Your task to perform on an android device: Open the stopwatch Image 0: 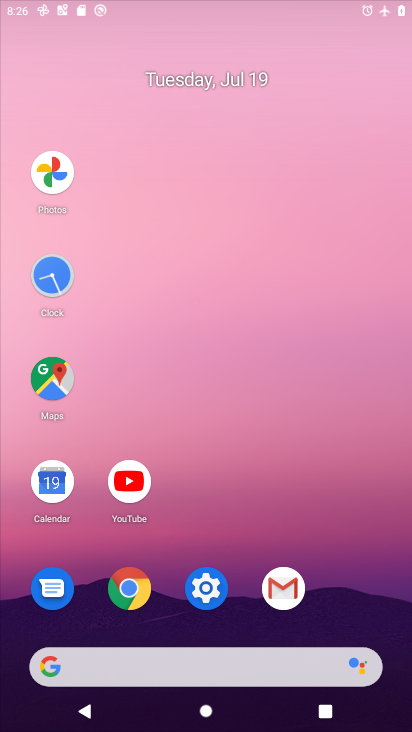
Step 0: click (212, 581)
Your task to perform on an android device: Open the stopwatch Image 1: 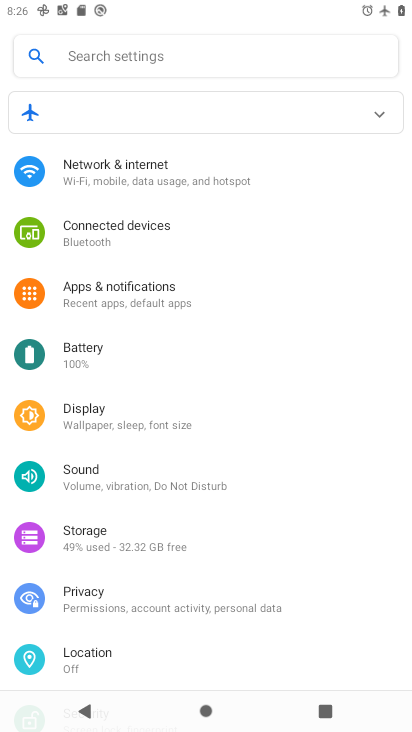
Step 1: press home button
Your task to perform on an android device: Open the stopwatch Image 2: 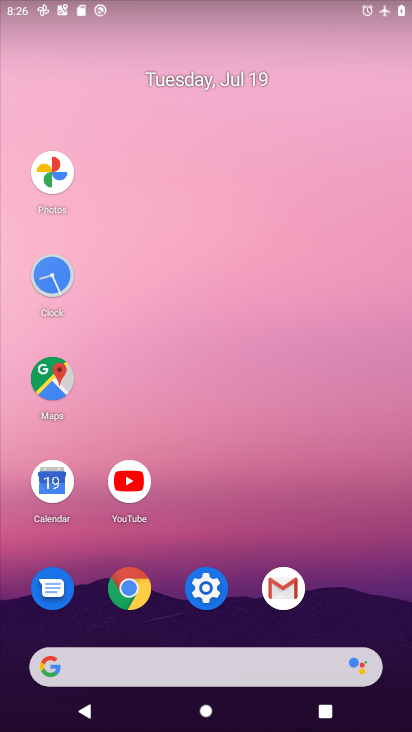
Step 2: drag from (225, 516) to (159, 241)
Your task to perform on an android device: Open the stopwatch Image 3: 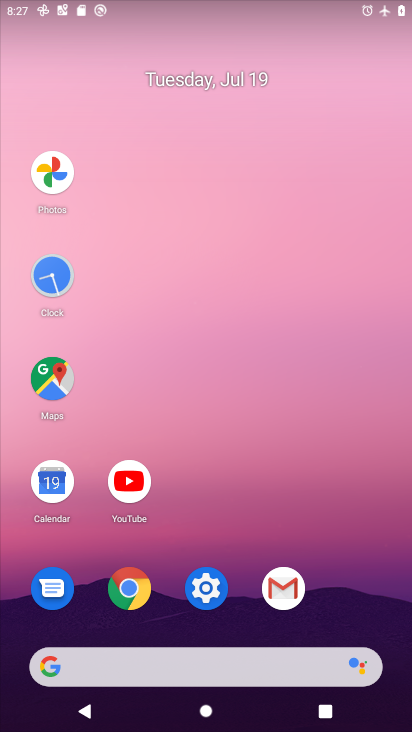
Step 3: click (49, 274)
Your task to perform on an android device: Open the stopwatch Image 4: 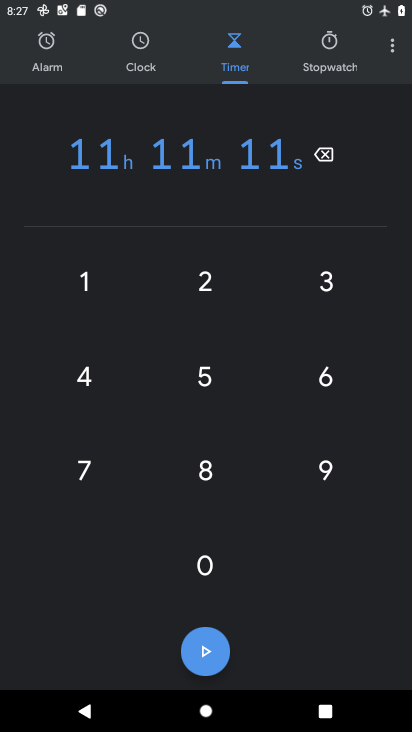
Step 4: click (333, 50)
Your task to perform on an android device: Open the stopwatch Image 5: 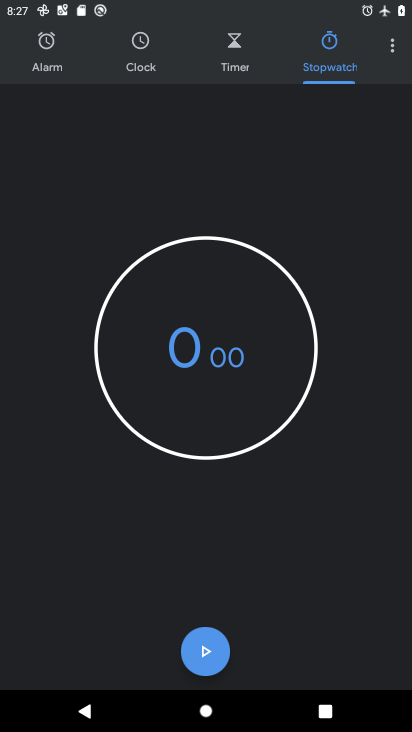
Step 5: task complete